Your task to perform on an android device: Open notification settings Image 0: 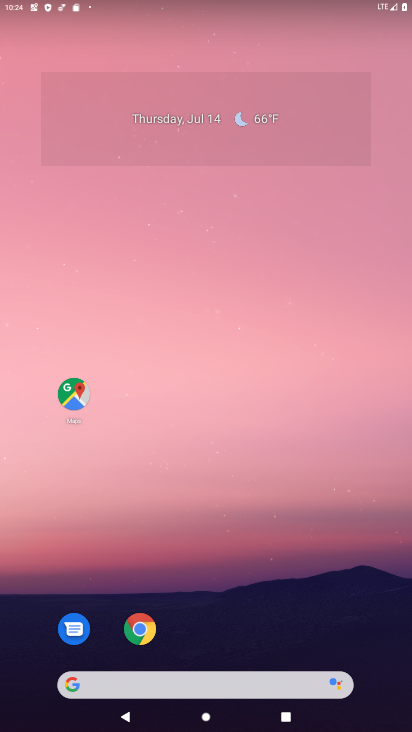
Step 0: press home button
Your task to perform on an android device: Open notification settings Image 1: 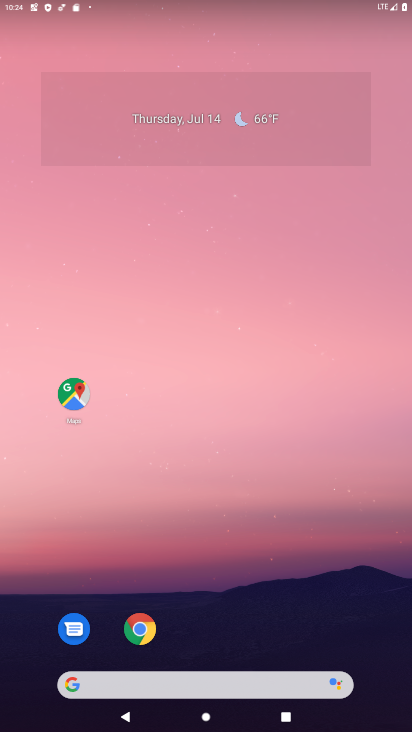
Step 1: drag from (260, 619) to (292, 69)
Your task to perform on an android device: Open notification settings Image 2: 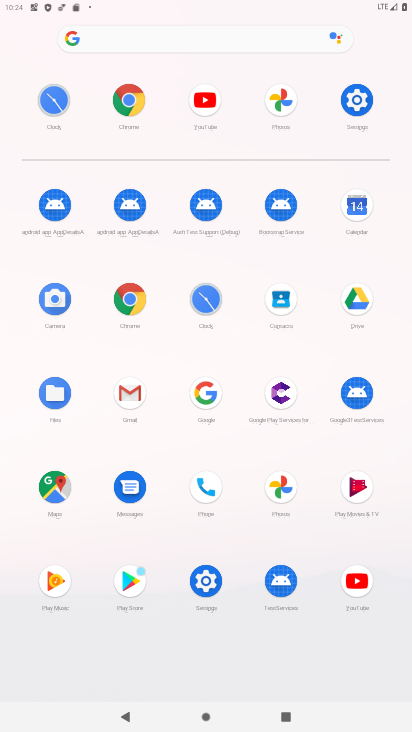
Step 2: click (359, 96)
Your task to perform on an android device: Open notification settings Image 3: 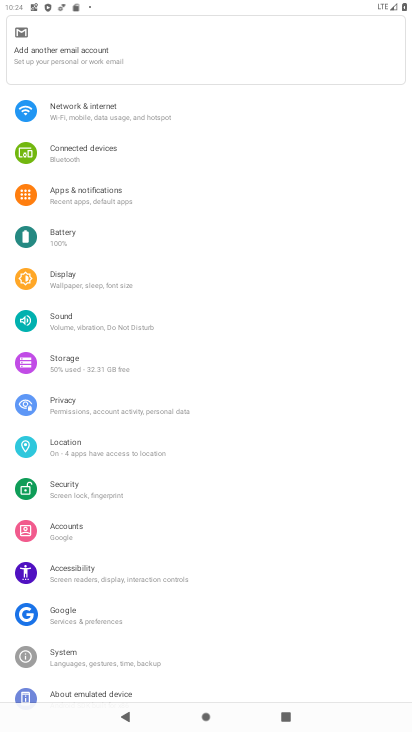
Step 3: click (107, 195)
Your task to perform on an android device: Open notification settings Image 4: 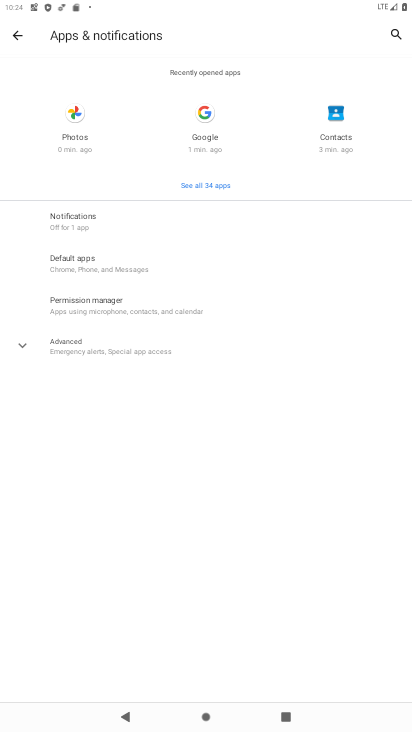
Step 4: click (83, 219)
Your task to perform on an android device: Open notification settings Image 5: 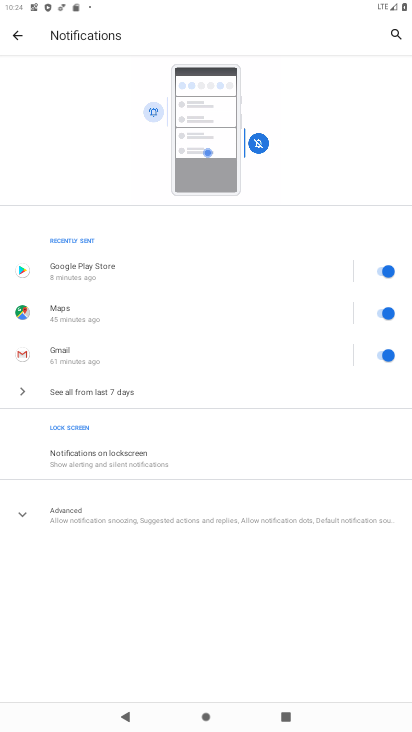
Step 5: task complete